Your task to perform on an android device: What is the recent news? Image 0: 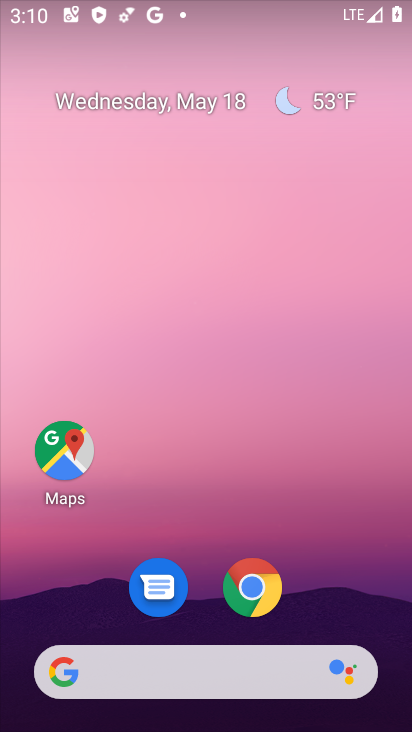
Step 0: drag from (253, 586) to (355, 46)
Your task to perform on an android device: What is the recent news? Image 1: 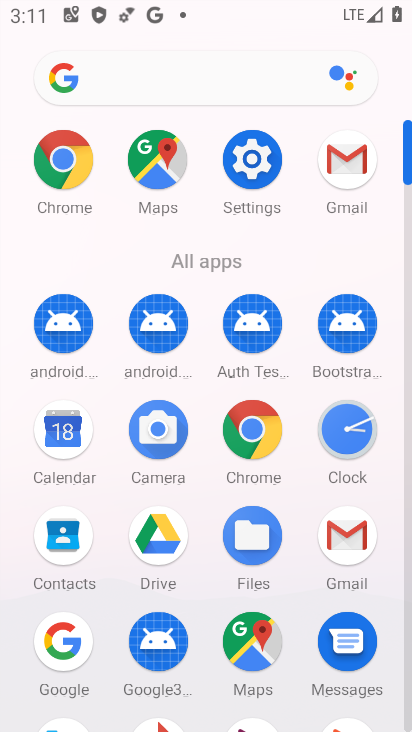
Step 1: click (63, 644)
Your task to perform on an android device: What is the recent news? Image 2: 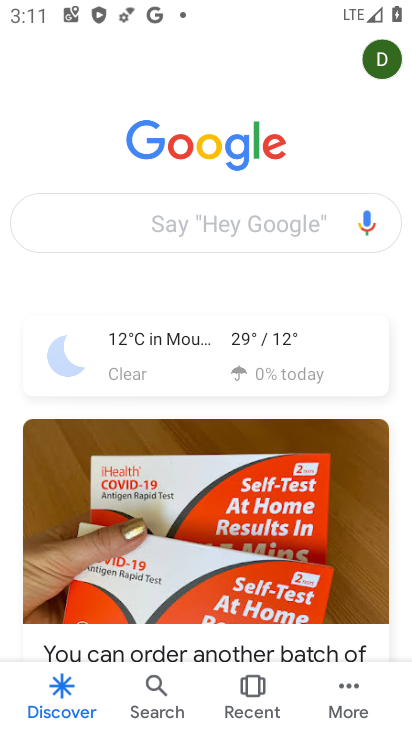
Step 2: click (245, 214)
Your task to perform on an android device: What is the recent news? Image 3: 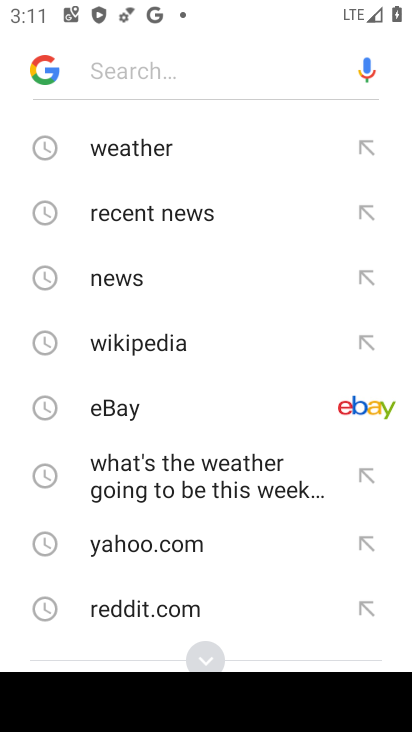
Step 3: click (182, 215)
Your task to perform on an android device: What is the recent news? Image 4: 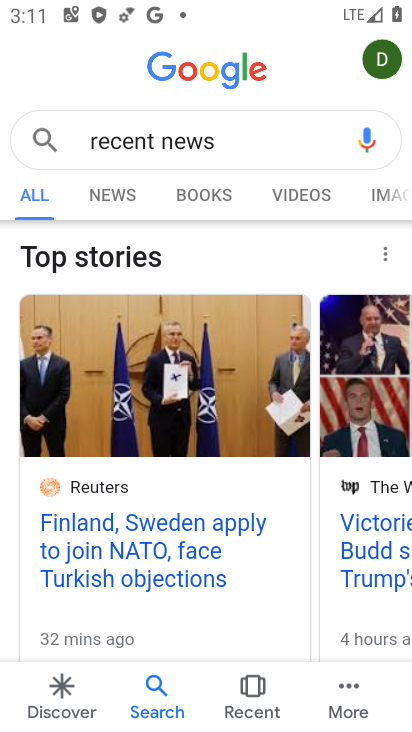
Step 4: task complete